Your task to perform on an android device: Show me productivity apps on the Play Store Image 0: 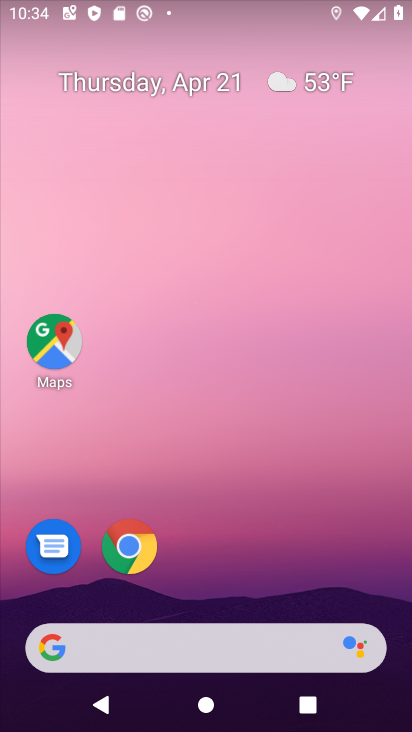
Step 0: drag from (281, 546) to (235, 79)
Your task to perform on an android device: Show me productivity apps on the Play Store Image 1: 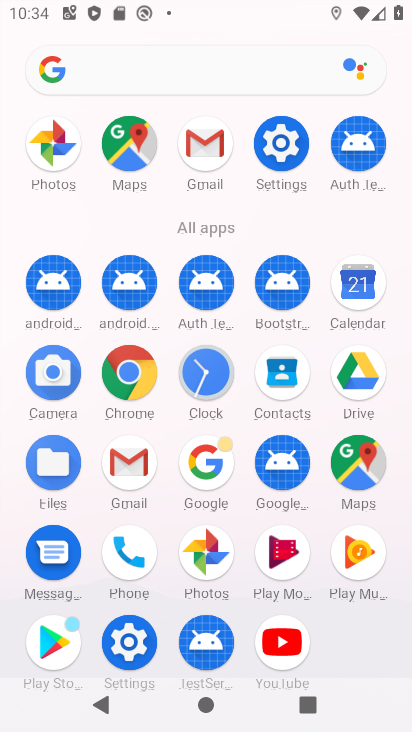
Step 1: click (61, 651)
Your task to perform on an android device: Show me productivity apps on the Play Store Image 2: 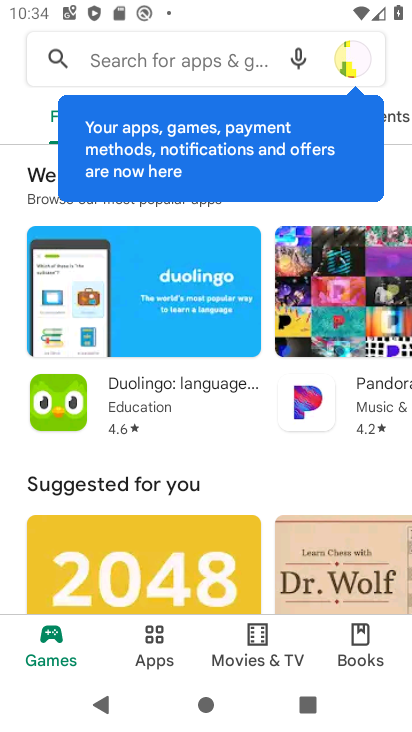
Step 2: click (154, 60)
Your task to perform on an android device: Show me productivity apps on the Play Store Image 3: 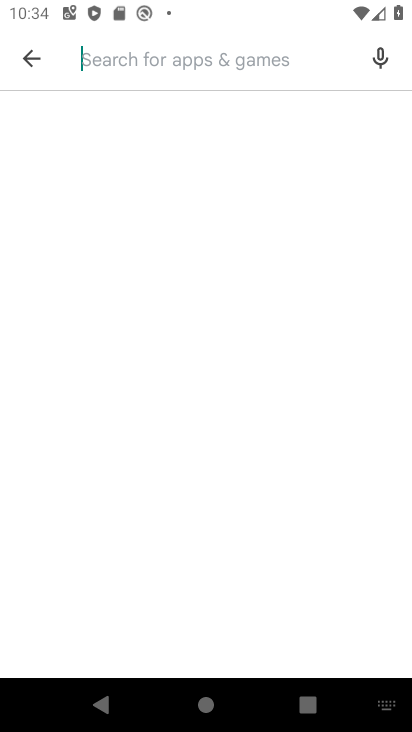
Step 3: type "productivity app"
Your task to perform on an android device: Show me productivity apps on the Play Store Image 4: 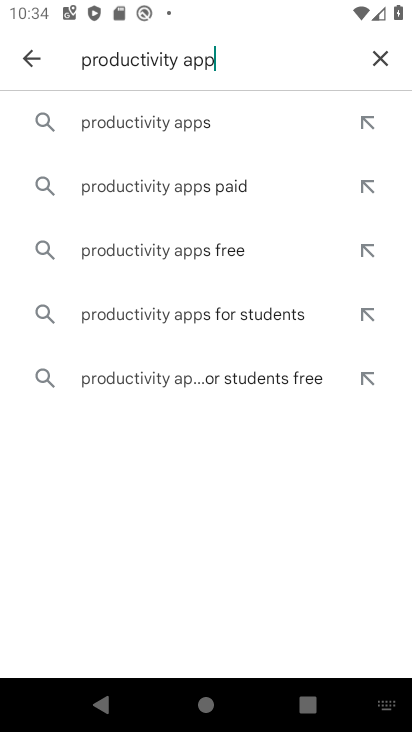
Step 4: click (155, 125)
Your task to perform on an android device: Show me productivity apps on the Play Store Image 5: 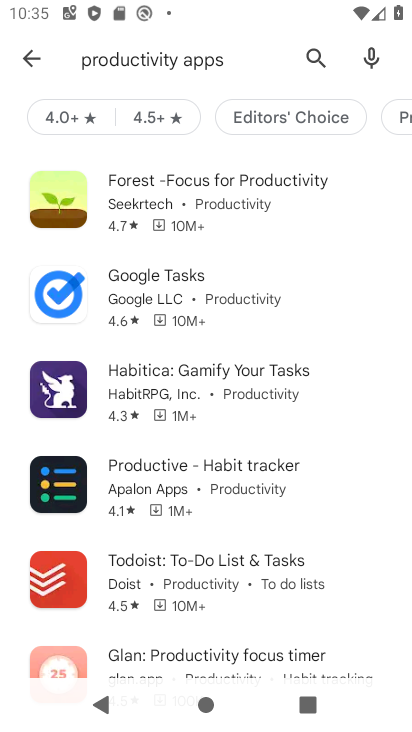
Step 5: task complete